Your task to perform on an android device: Open Google Chrome and click the shortcut for Amazon.com Image 0: 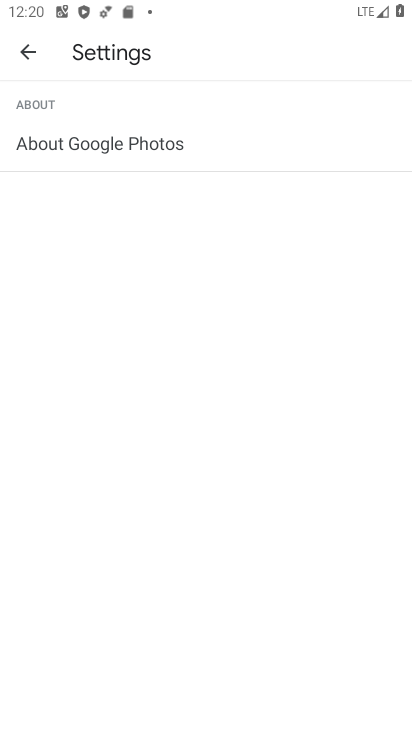
Step 0: press home button
Your task to perform on an android device: Open Google Chrome and click the shortcut for Amazon.com Image 1: 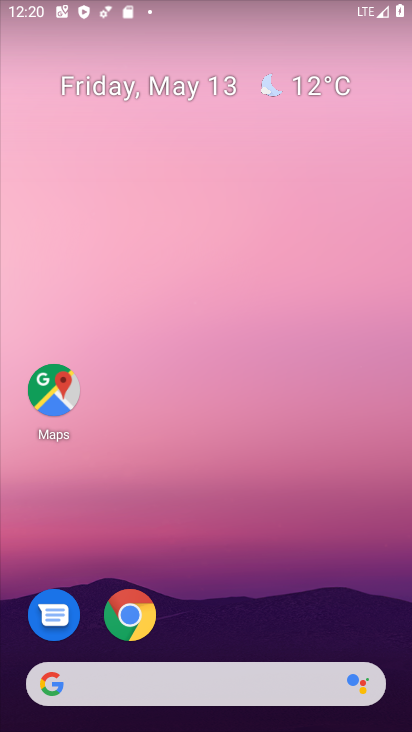
Step 1: click (145, 599)
Your task to perform on an android device: Open Google Chrome and click the shortcut for Amazon.com Image 2: 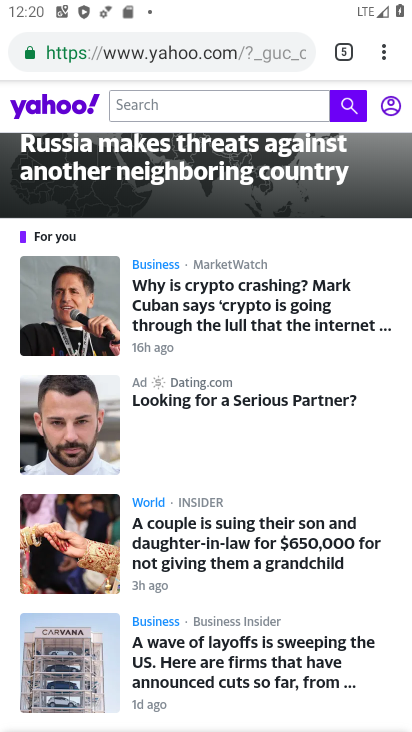
Step 2: click (352, 59)
Your task to perform on an android device: Open Google Chrome and click the shortcut for Amazon.com Image 3: 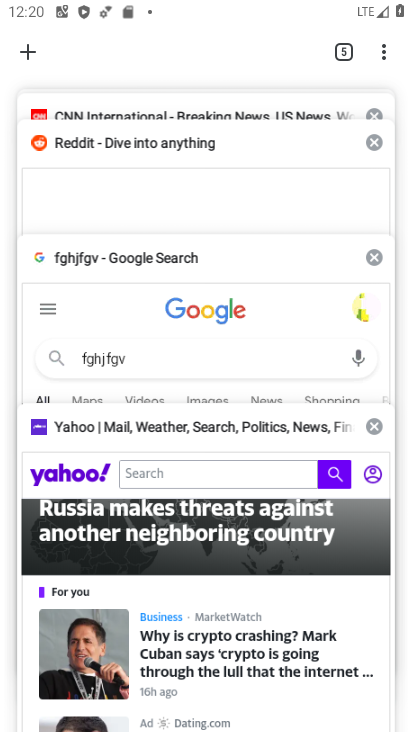
Step 3: click (371, 259)
Your task to perform on an android device: Open Google Chrome and click the shortcut for Amazon.com Image 4: 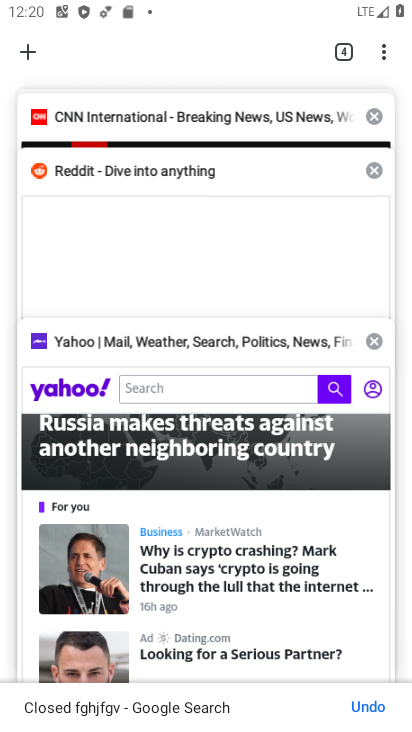
Step 4: click (28, 53)
Your task to perform on an android device: Open Google Chrome and click the shortcut for Amazon.com Image 5: 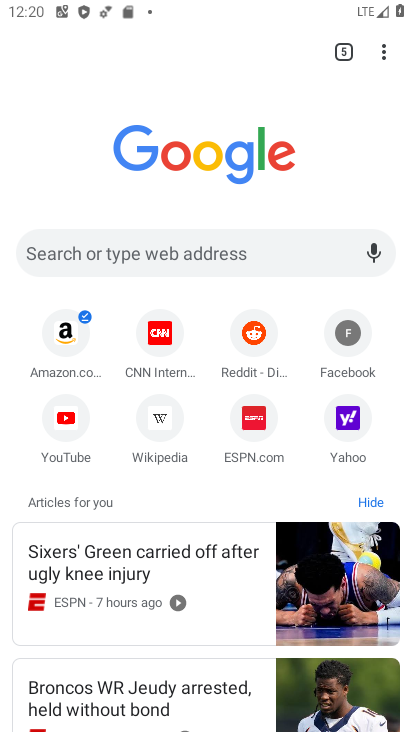
Step 5: click (69, 345)
Your task to perform on an android device: Open Google Chrome and click the shortcut for Amazon.com Image 6: 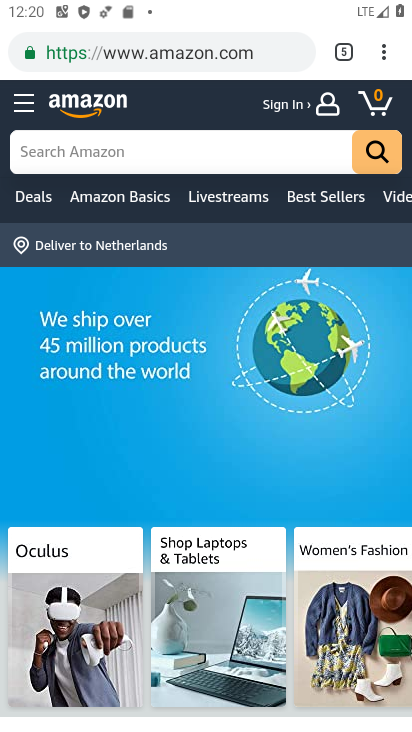
Step 6: task complete